Your task to perform on an android device: toggle location history Image 0: 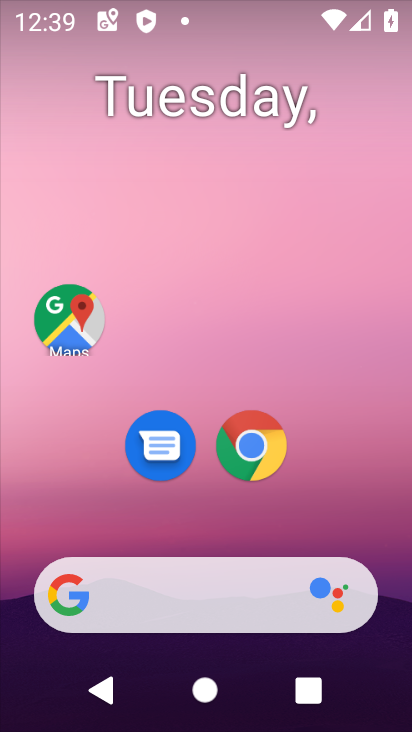
Step 0: drag from (369, 484) to (410, 99)
Your task to perform on an android device: toggle location history Image 1: 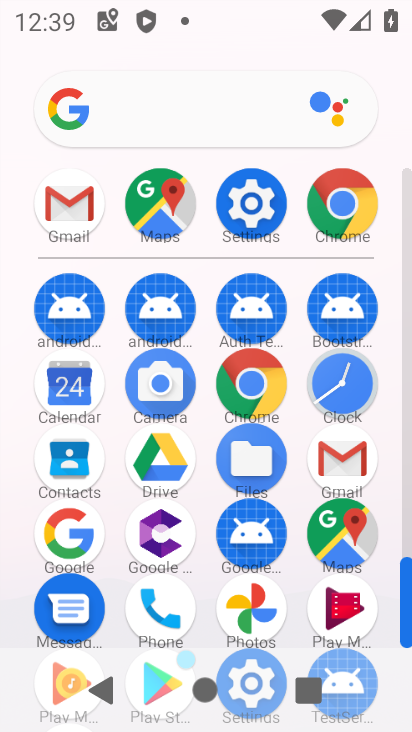
Step 1: click (250, 210)
Your task to perform on an android device: toggle location history Image 2: 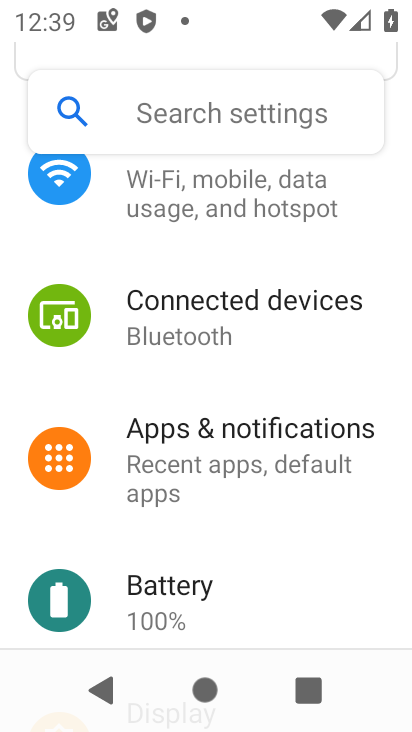
Step 2: drag from (259, 550) to (244, 219)
Your task to perform on an android device: toggle location history Image 3: 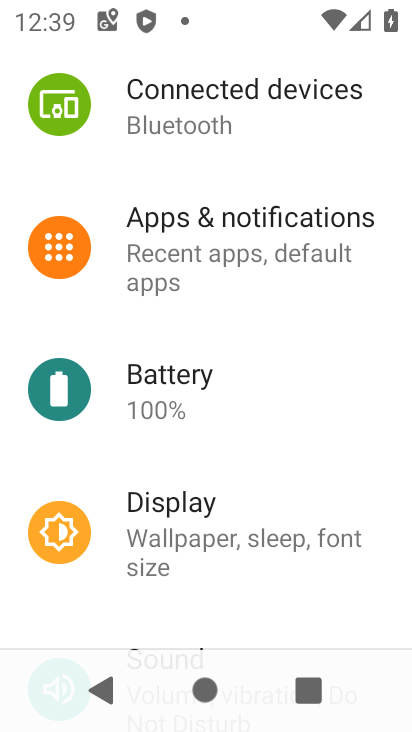
Step 3: drag from (252, 549) to (242, 274)
Your task to perform on an android device: toggle location history Image 4: 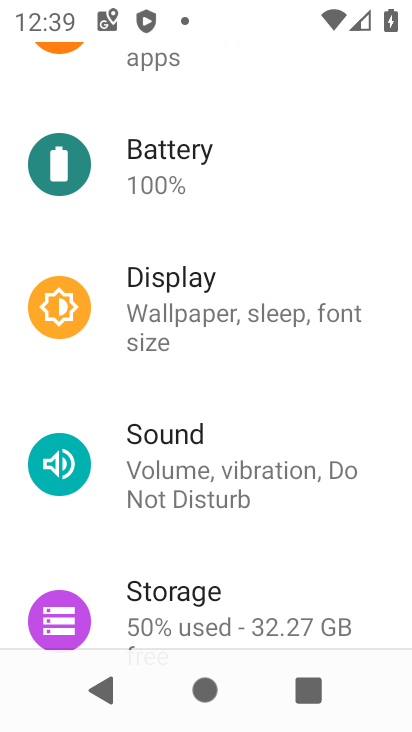
Step 4: drag from (305, 515) to (302, 212)
Your task to perform on an android device: toggle location history Image 5: 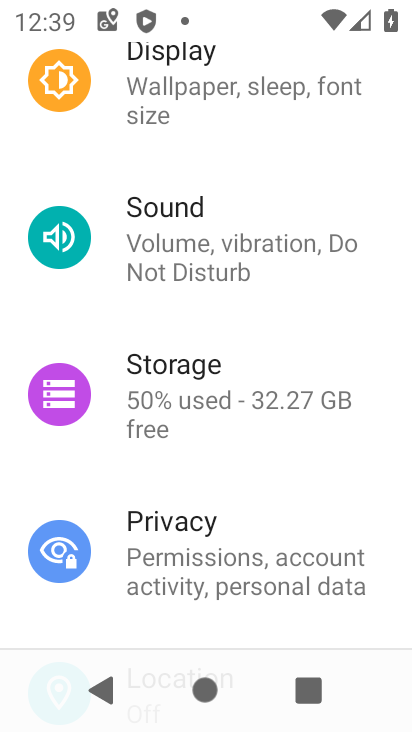
Step 5: drag from (273, 493) to (244, 174)
Your task to perform on an android device: toggle location history Image 6: 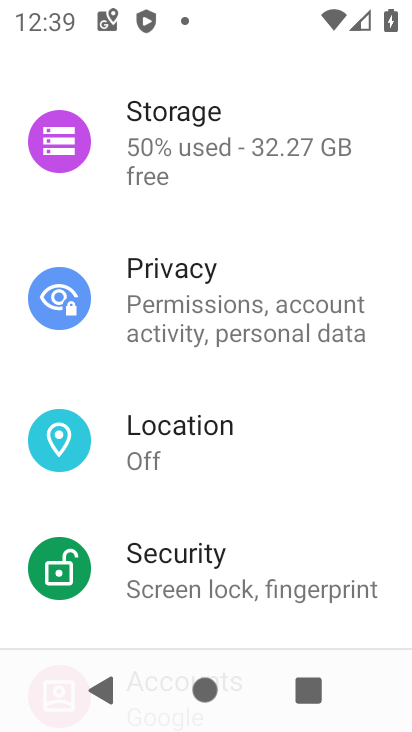
Step 6: click (182, 409)
Your task to perform on an android device: toggle location history Image 7: 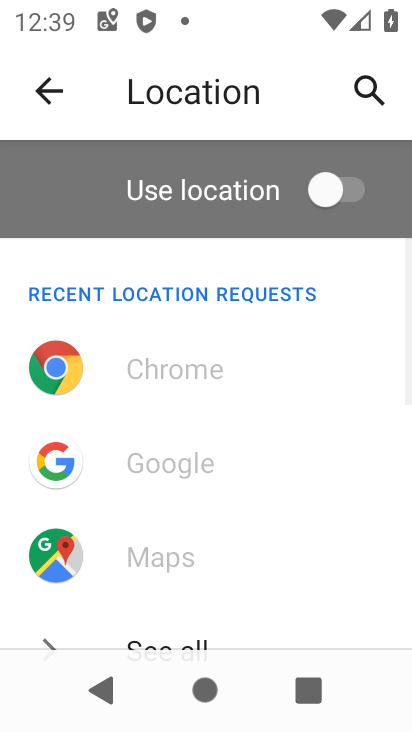
Step 7: click (240, 266)
Your task to perform on an android device: toggle location history Image 8: 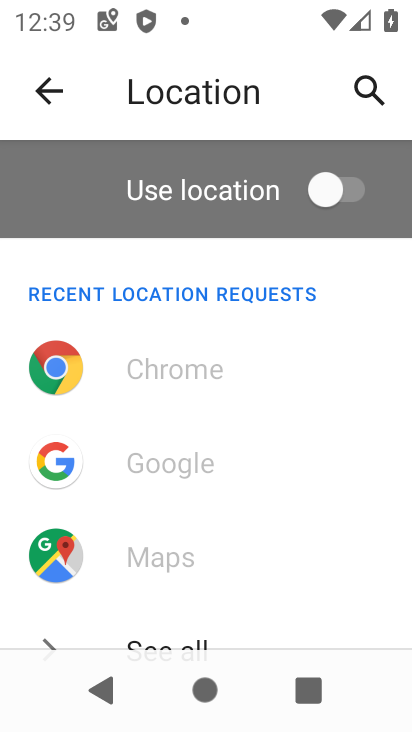
Step 8: drag from (261, 554) to (293, 285)
Your task to perform on an android device: toggle location history Image 9: 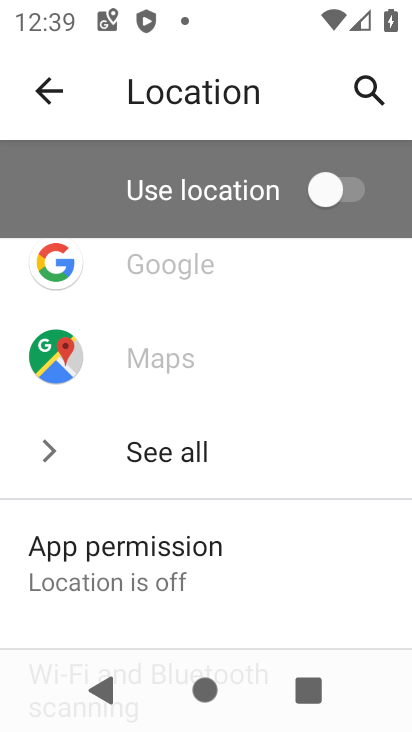
Step 9: drag from (276, 541) to (301, 214)
Your task to perform on an android device: toggle location history Image 10: 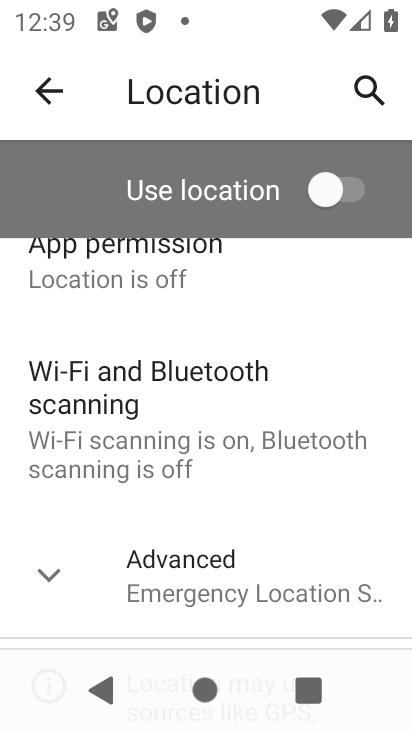
Step 10: click (164, 568)
Your task to perform on an android device: toggle location history Image 11: 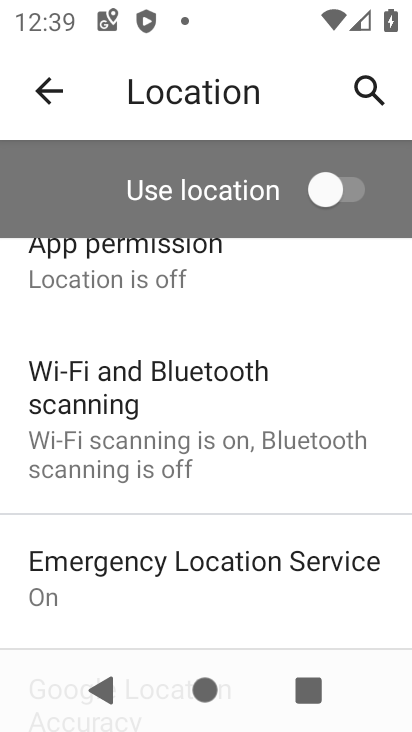
Step 11: drag from (227, 560) to (249, 301)
Your task to perform on an android device: toggle location history Image 12: 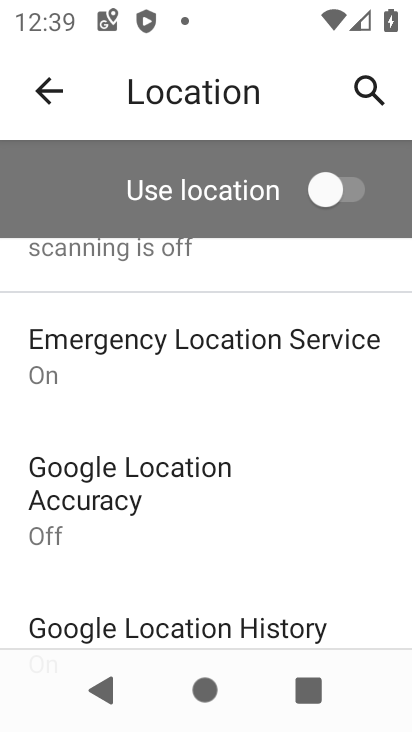
Step 12: drag from (225, 554) to (212, 245)
Your task to perform on an android device: toggle location history Image 13: 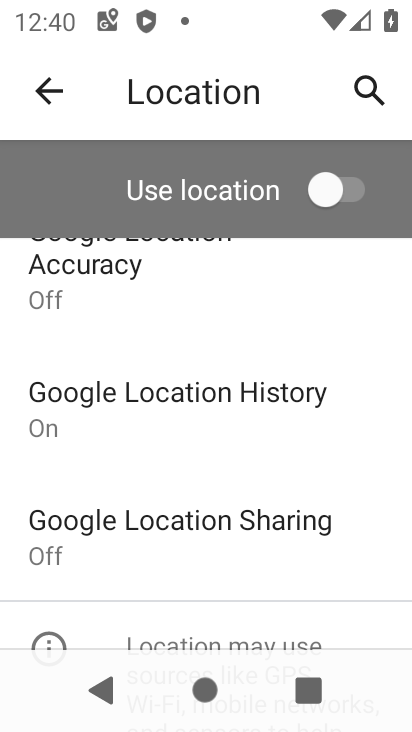
Step 13: click (203, 390)
Your task to perform on an android device: toggle location history Image 14: 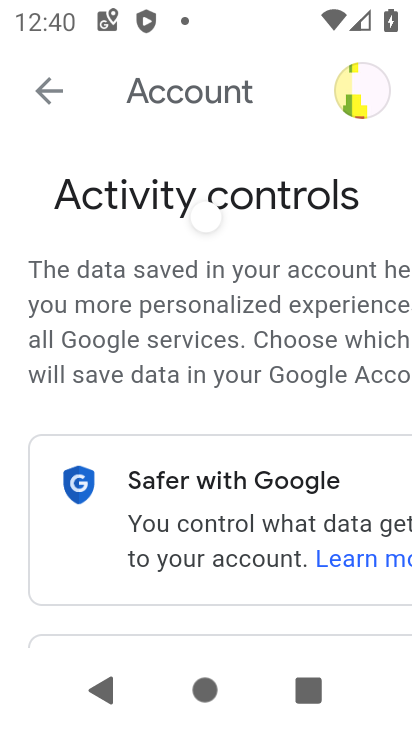
Step 14: drag from (205, 531) to (237, 164)
Your task to perform on an android device: toggle location history Image 15: 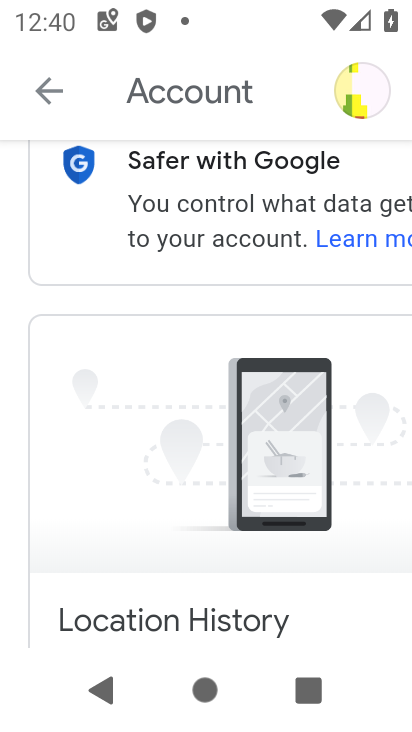
Step 15: drag from (177, 547) to (228, 247)
Your task to perform on an android device: toggle location history Image 16: 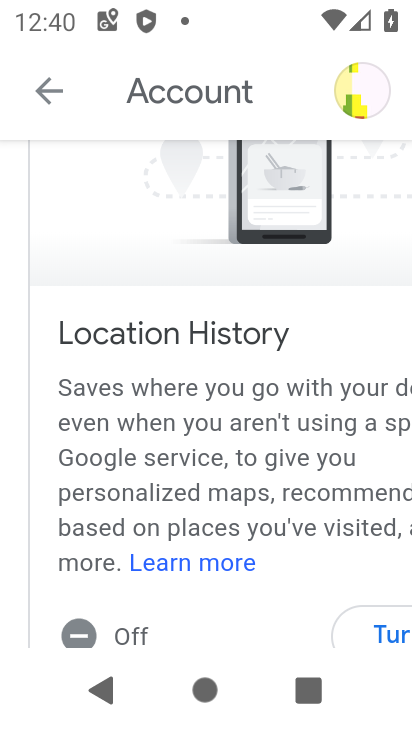
Step 16: drag from (245, 498) to (285, 186)
Your task to perform on an android device: toggle location history Image 17: 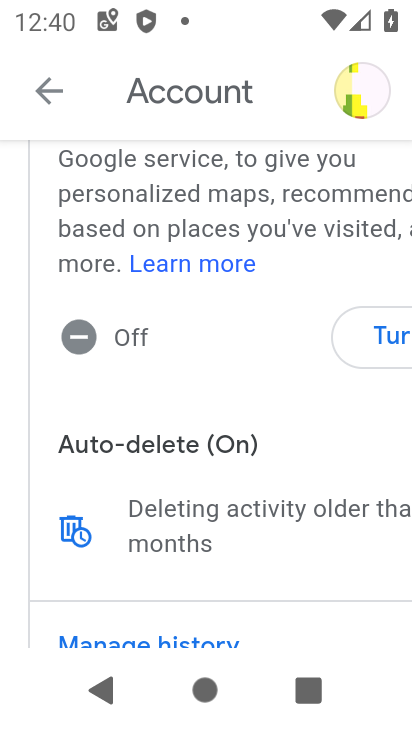
Step 17: click (386, 345)
Your task to perform on an android device: toggle location history Image 18: 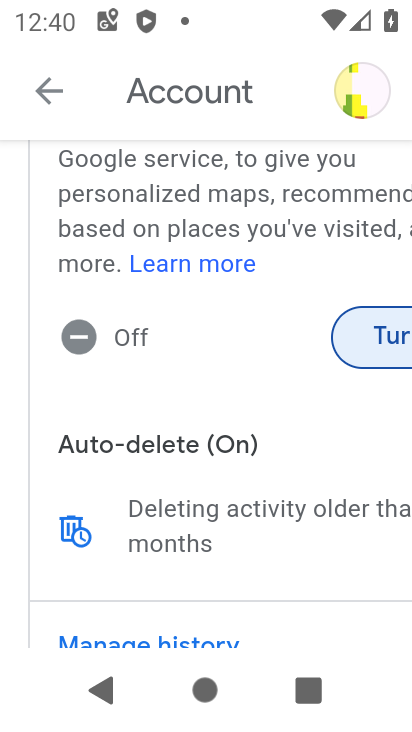
Step 18: click (380, 345)
Your task to perform on an android device: toggle location history Image 19: 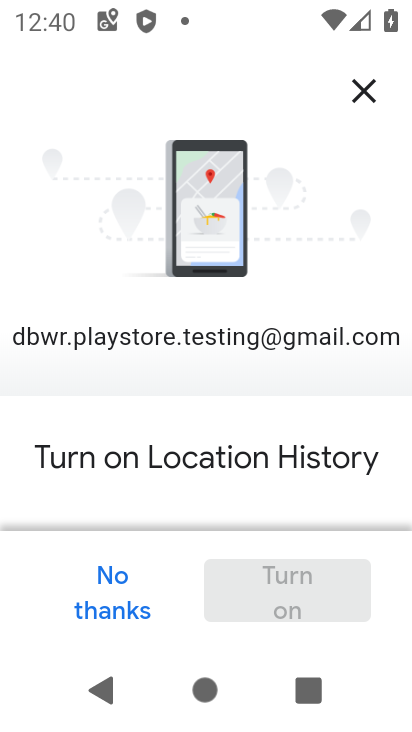
Step 19: drag from (339, 478) to (323, 148)
Your task to perform on an android device: toggle location history Image 20: 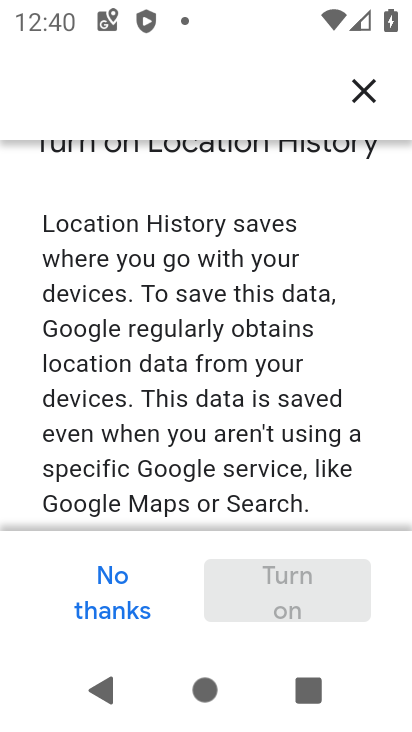
Step 20: drag from (316, 407) to (314, 41)
Your task to perform on an android device: toggle location history Image 21: 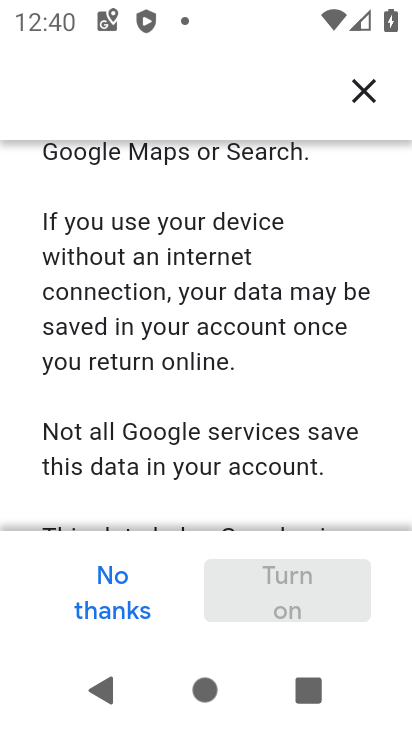
Step 21: drag from (264, 458) to (289, 104)
Your task to perform on an android device: toggle location history Image 22: 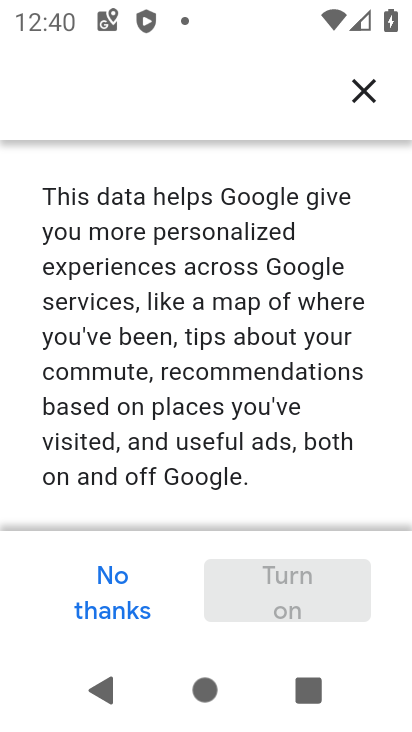
Step 22: drag from (232, 437) to (268, 76)
Your task to perform on an android device: toggle location history Image 23: 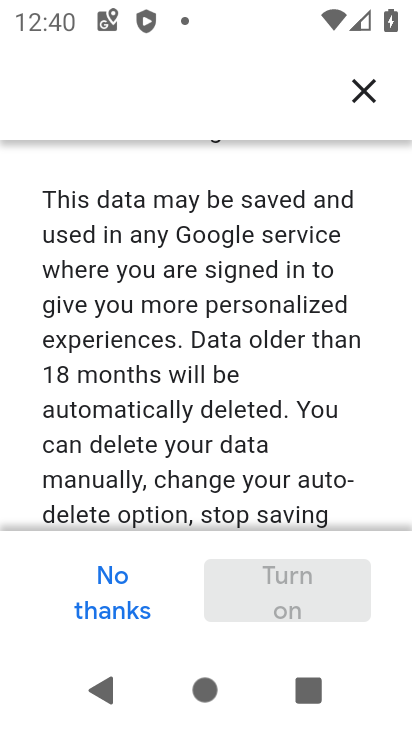
Step 23: drag from (258, 457) to (305, 215)
Your task to perform on an android device: toggle location history Image 24: 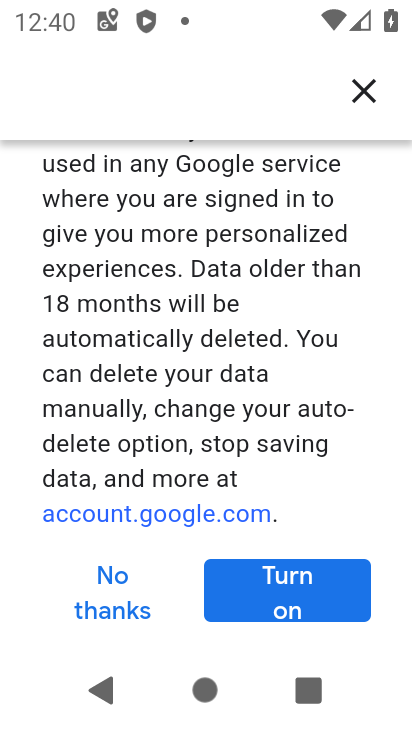
Step 24: drag from (301, 456) to (296, 143)
Your task to perform on an android device: toggle location history Image 25: 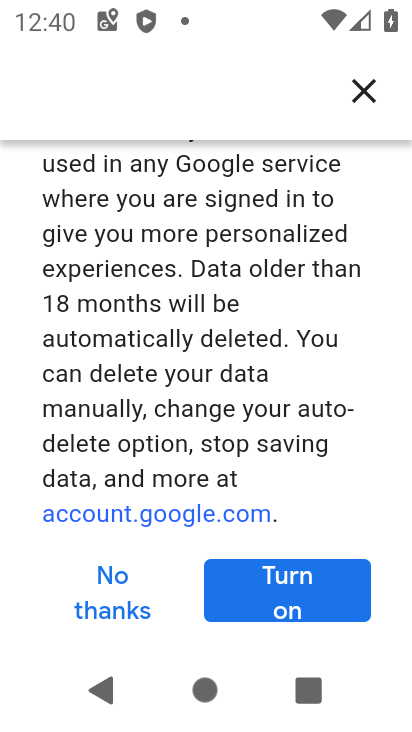
Step 25: click (249, 565)
Your task to perform on an android device: toggle location history Image 26: 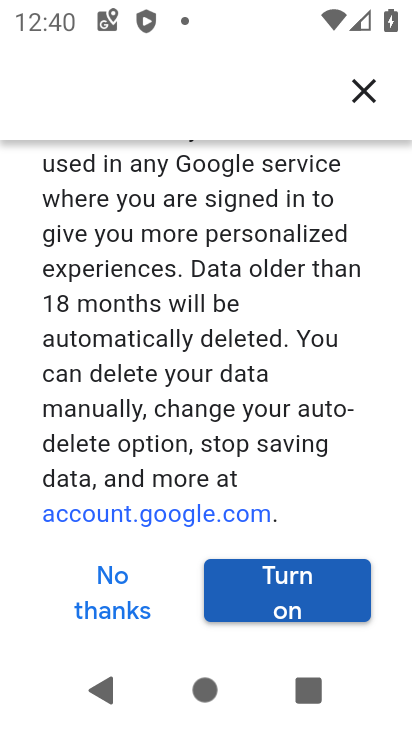
Step 26: click (259, 594)
Your task to perform on an android device: toggle location history Image 27: 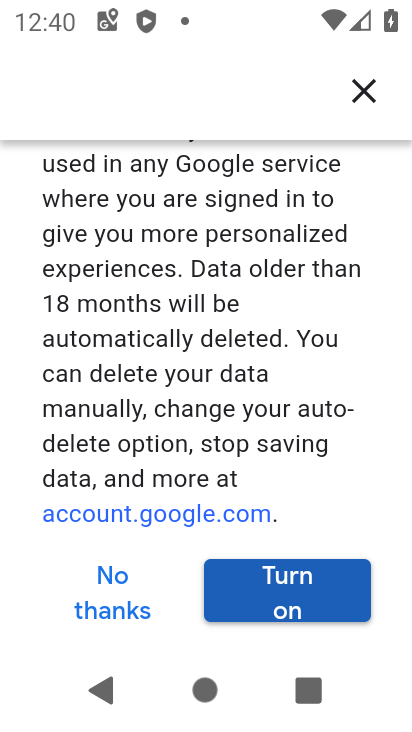
Step 27: click (289, 560)
Your task to perform on an android device: toggle location history Image 28: 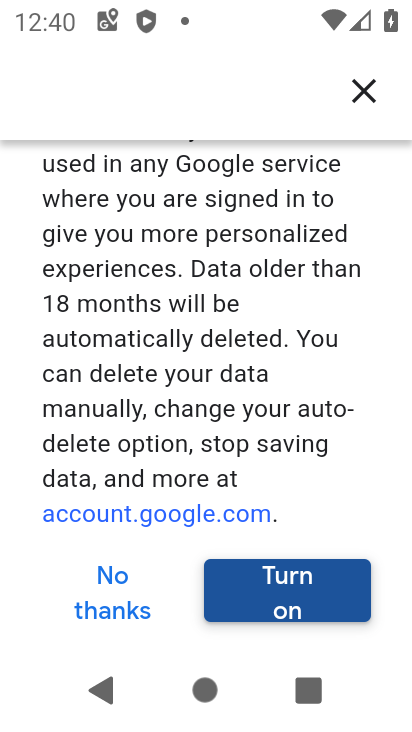
Step 28: click (276, 580)
Your task to perform on an android device: toggle location history Image 29: 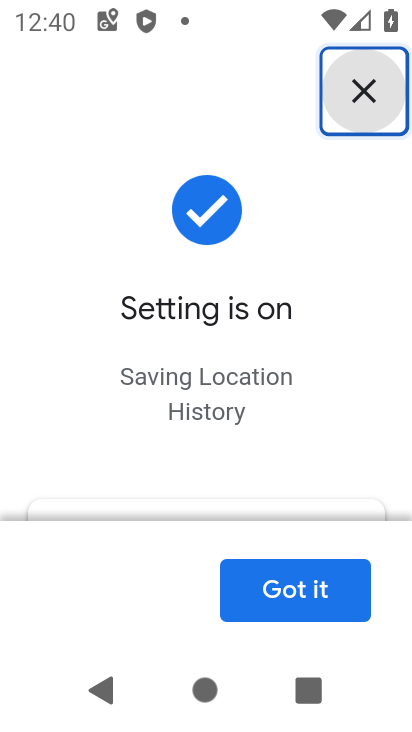
Step 29: click (279, 580)
Your task to perform on an android device: toggle location history Image 30: 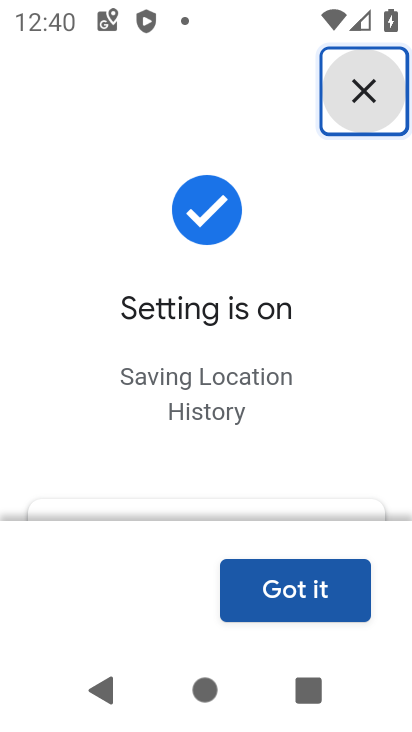
Step 30: click (285, 576)
Your task to perform on an android device: toggle location history Image 31: 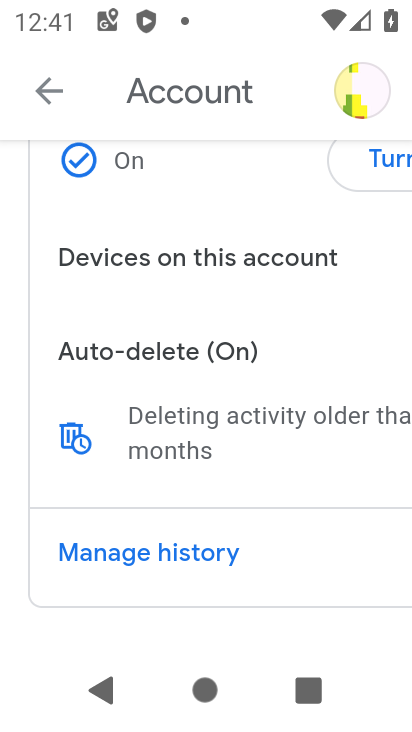
Step 31: task complete